Your task to perform on an android device: What is the capital of India? Image 0: 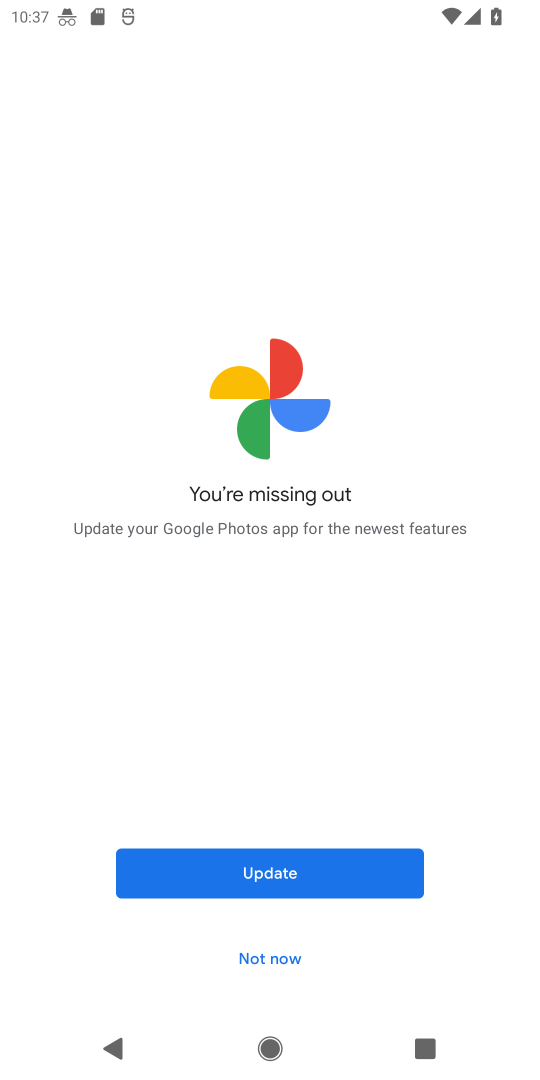
Step 0: press home button
Your task to perform on an android device: What is the capital of India? Image 1: 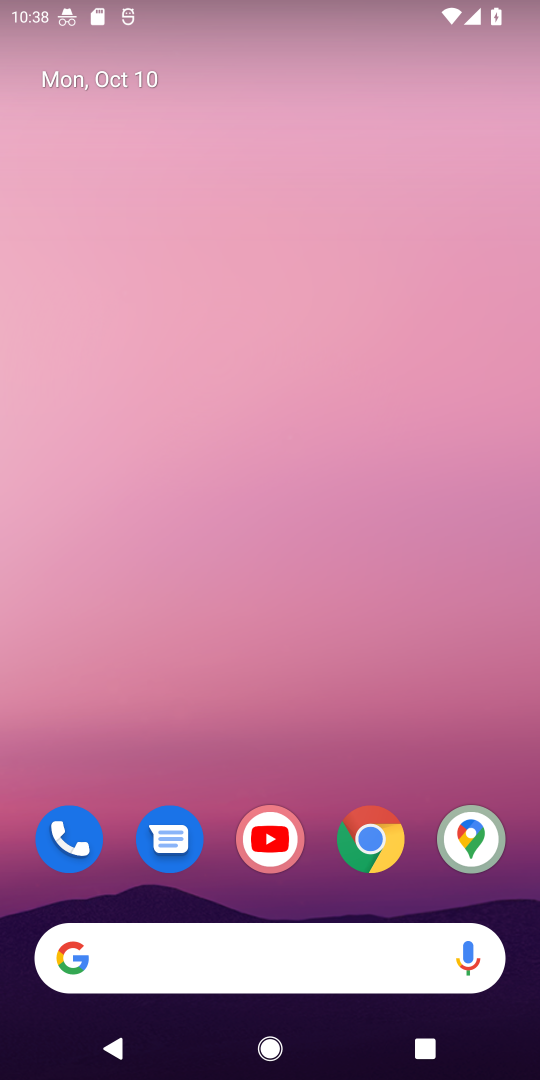
Step 1: drag from (323, 895) to (317, 131)
Your task to perform on an android device: What is the capital of India? Image 2: 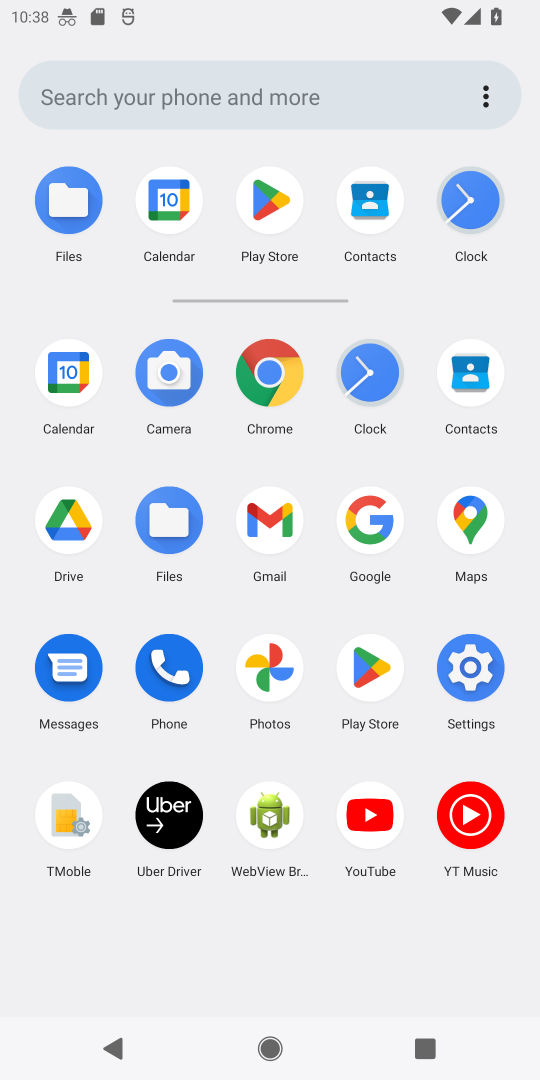
Step 2: click (276, 380)
Your task to perform on an android device: What is the capital of India? Image 3: 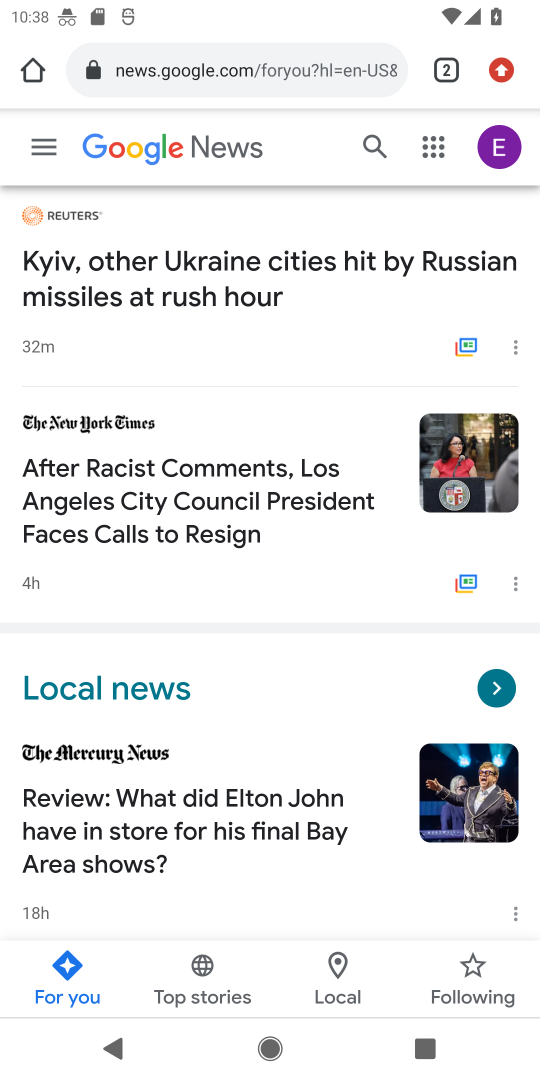
Step 3: click (297, 73)
Your task to perform on an android device: What is the capital of India? Image 4: 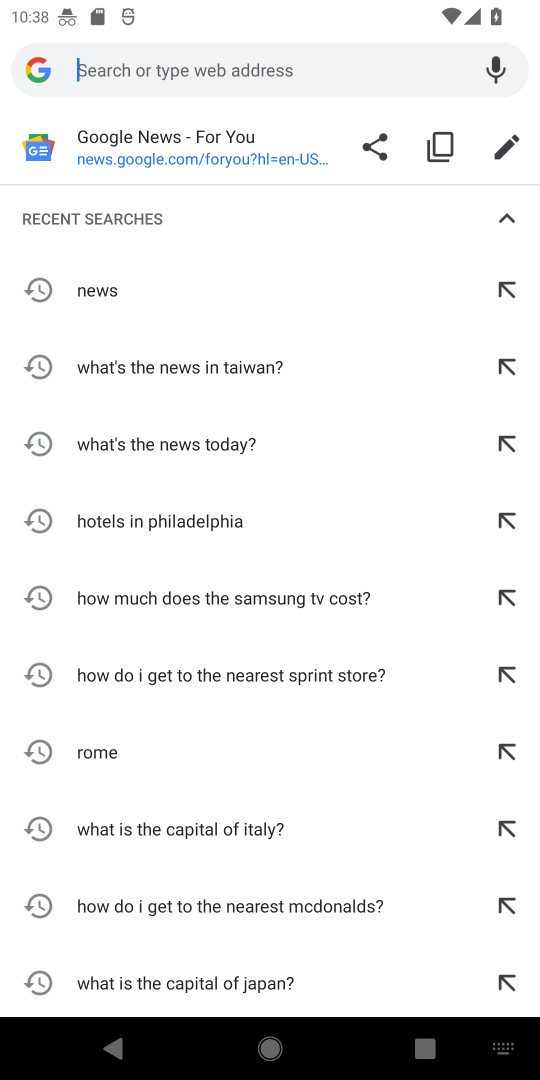
Step 4: type "What is the capital of India"
Your task to perform on an android device: What is the capital of India? Image 5: 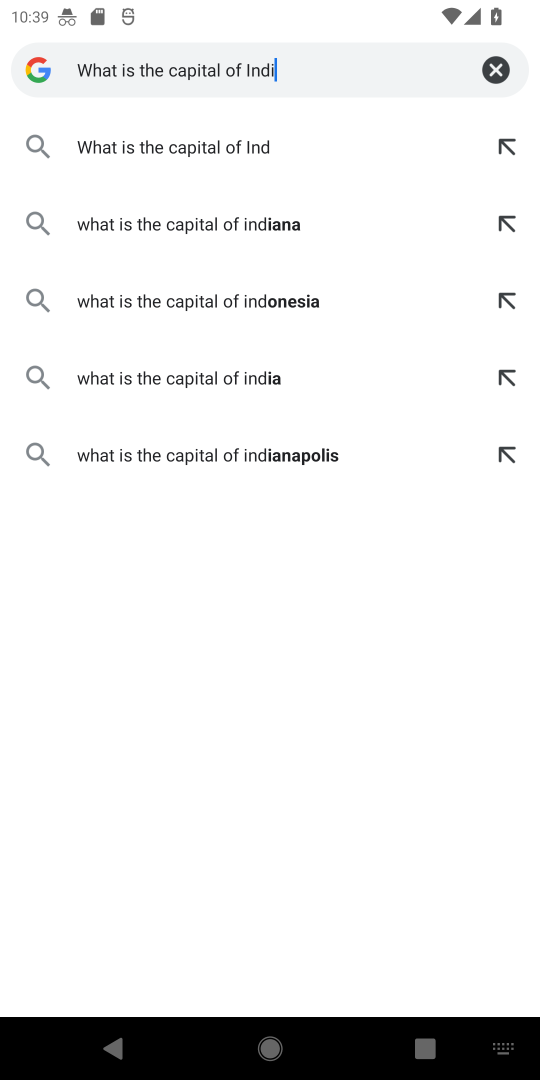
Step 5: type "?"
Your task to perform on an android device: What is the capital of India? Image 6: 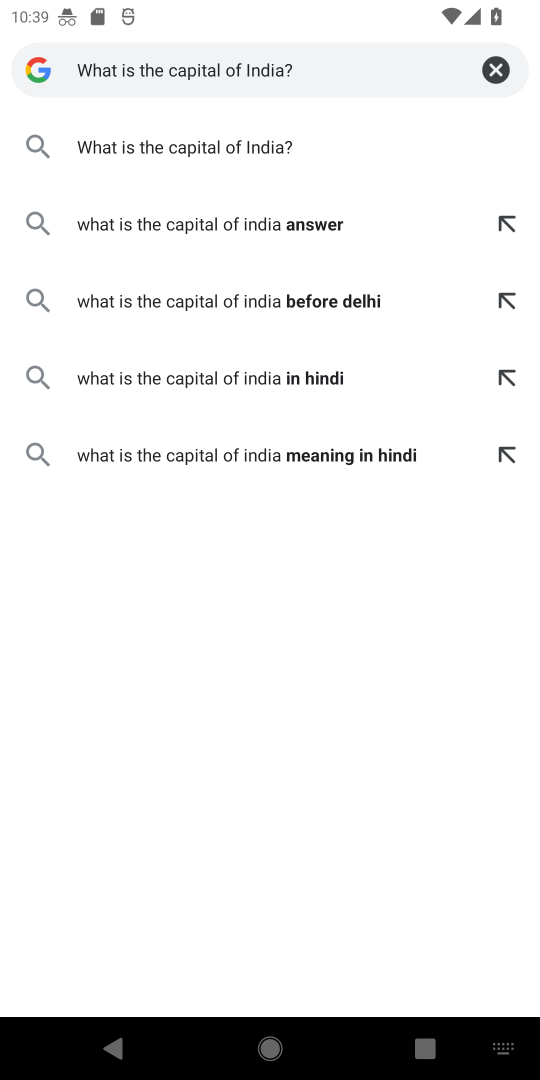
Step 6: press enter
Your task to perform on an android device: What is the capital of India? Image 7: 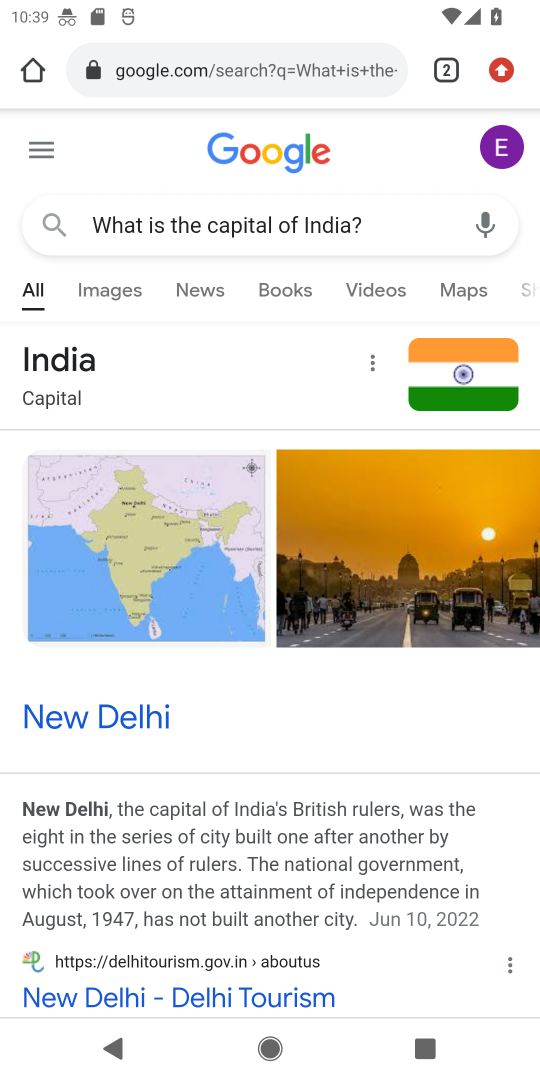
Step 7: task complete